Your task to perform on an android device: Turn off the flashlight Image 0: 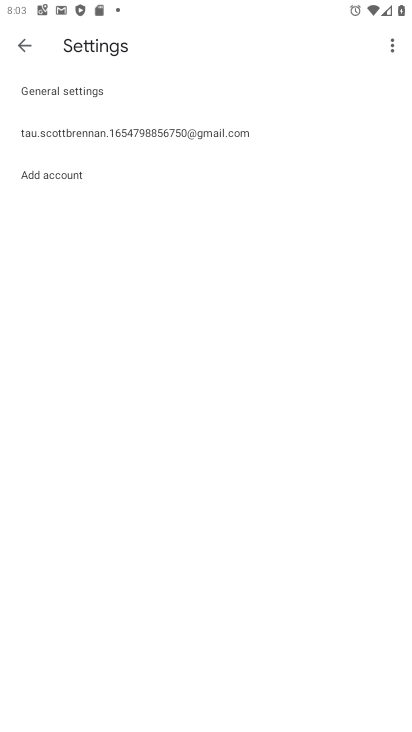
Step 0: press home button
Your task to perform on an android device: Turn off the flashlight Image 1: 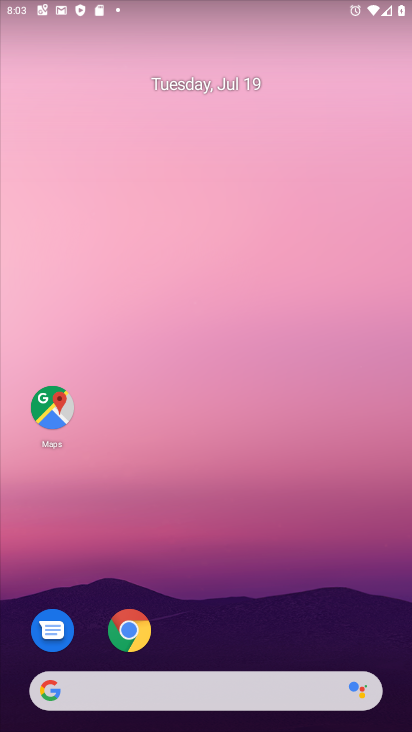
Step 1: drag from (189, 589) to (203, 14)
Your task to perform on an android device: Turn off the flashlight Image 2: 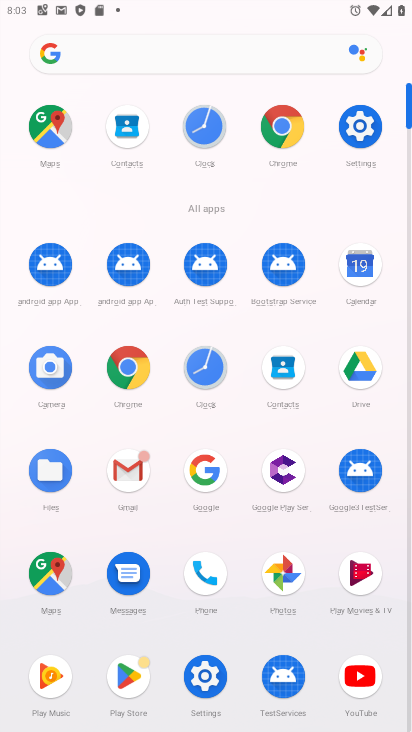
Step 2: click (364, 132)
Your task to perform on an android device: Turn off the flashlight Image 3: 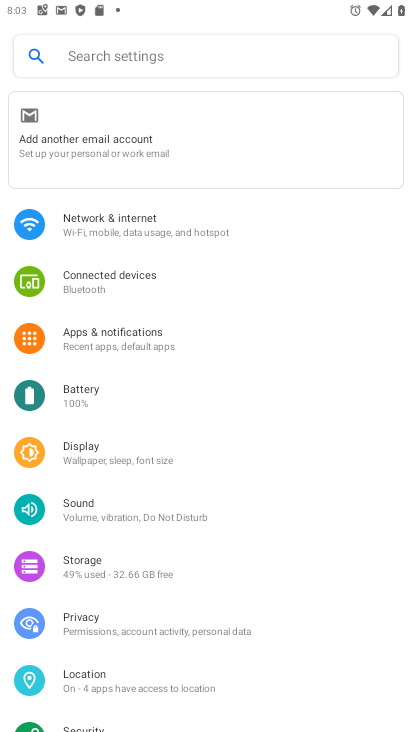
Step 3: task complete